Your task to perform on an android device: Go to Amazon Image 0: 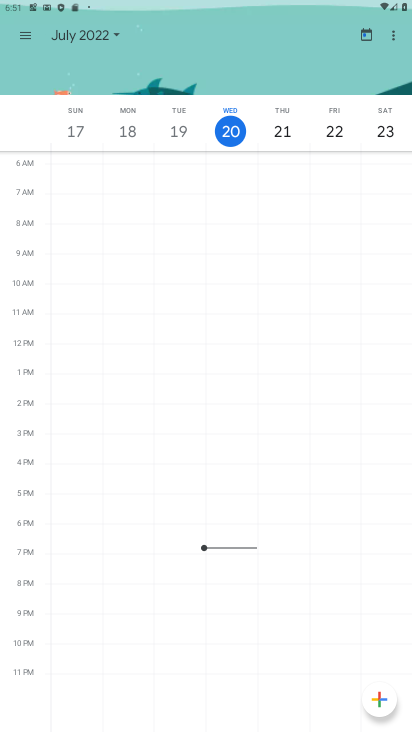
Step 0: press home button
Your task to perform on an android device: Go to Amazon Image 1: 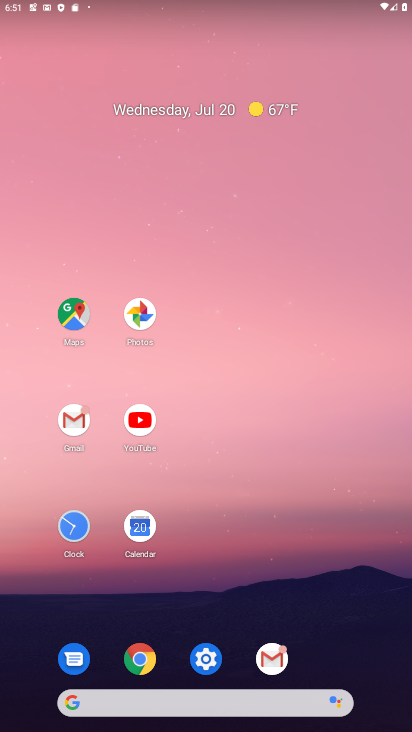
Step 1: click (138, 659)
Your task to perform on an android device: Go to Amazon Image 2: 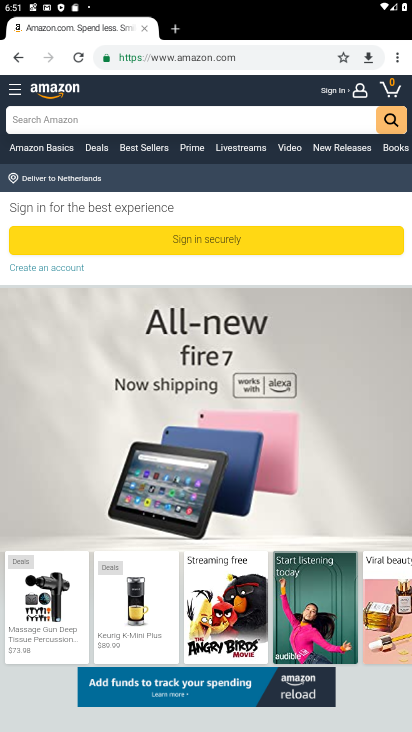
Step 2: task complete